Your task to perform on an android device: Go to wifi settings Image 0: 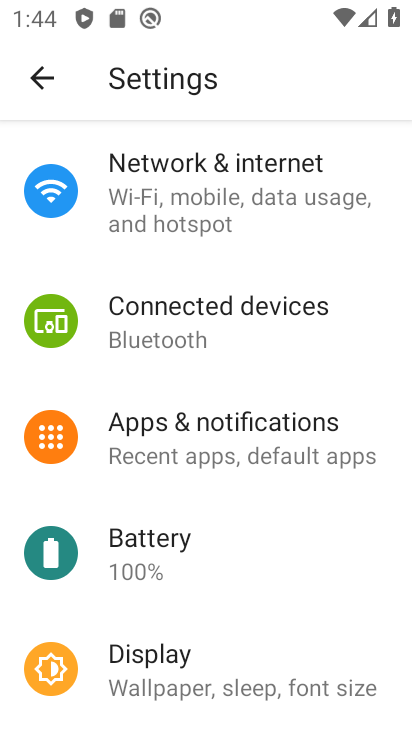
Step 0: click (214, 190)
Your task to perform on an android device: Go to wifi settings Image 1: 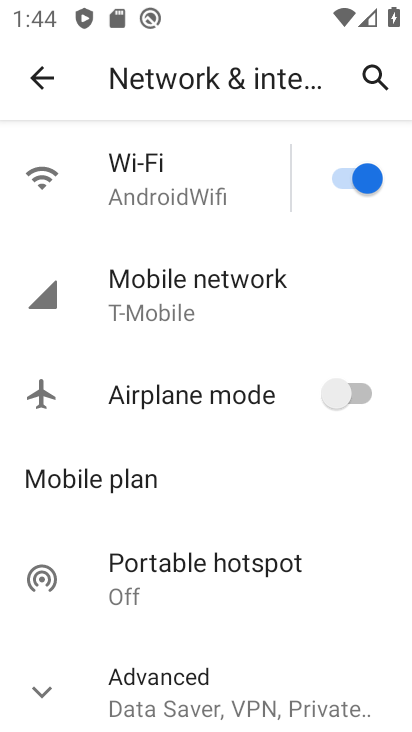
Step 1: click (197, 188)
Your task to perform on an android device: Go to wifi settings Image 2: 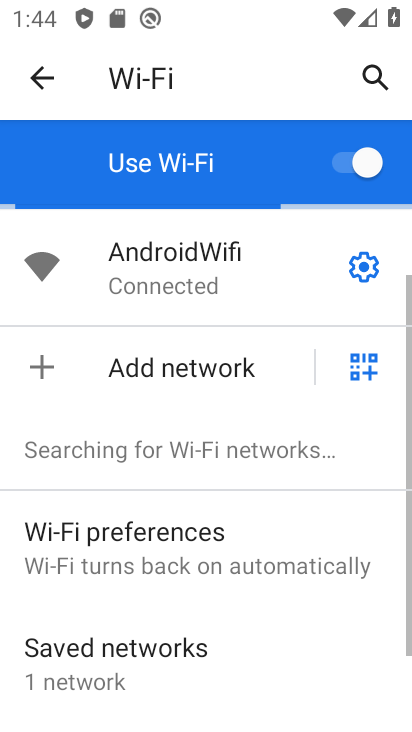
Step 2: click (365, 270)
Your task to perform on an android device: Go to wifi settings Image 3: 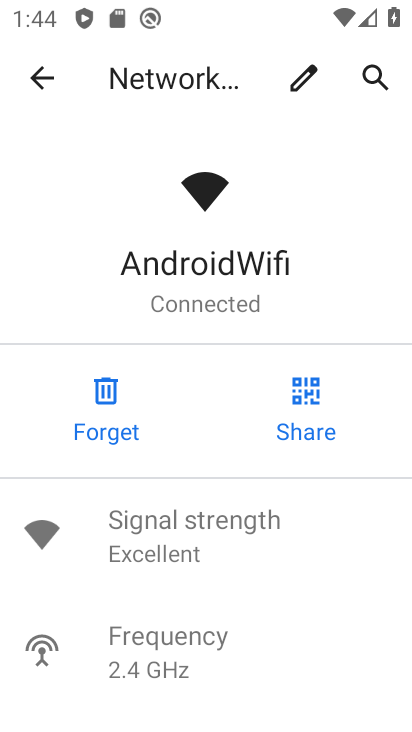
Step 3: drag from (254, 694) to (252, 285)
Your task to perform on an android device: Go to wifi settings Image 4: 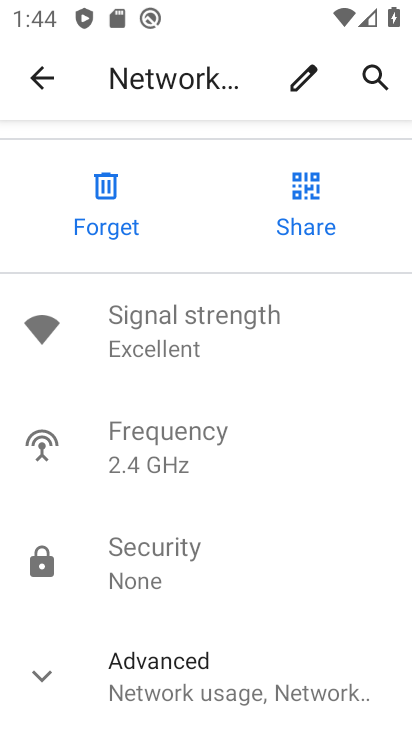
Step 4: click (42, 671)
Your task to perform on an android device: Go to wifi settings Image 5: 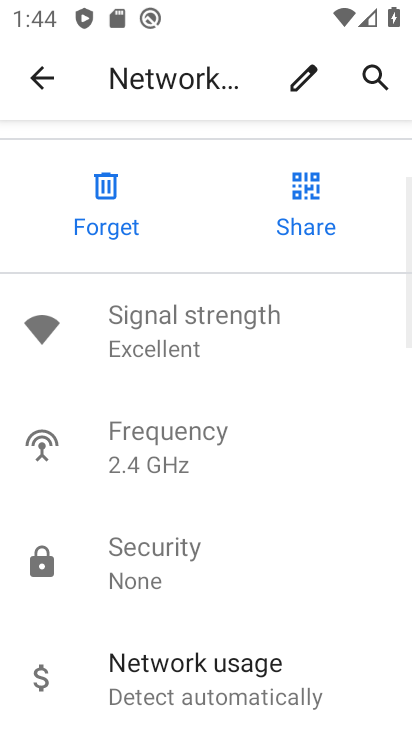
Step 5: task complete